Your task to perform on an android device: turn off data saver in the chrome app Image 0: 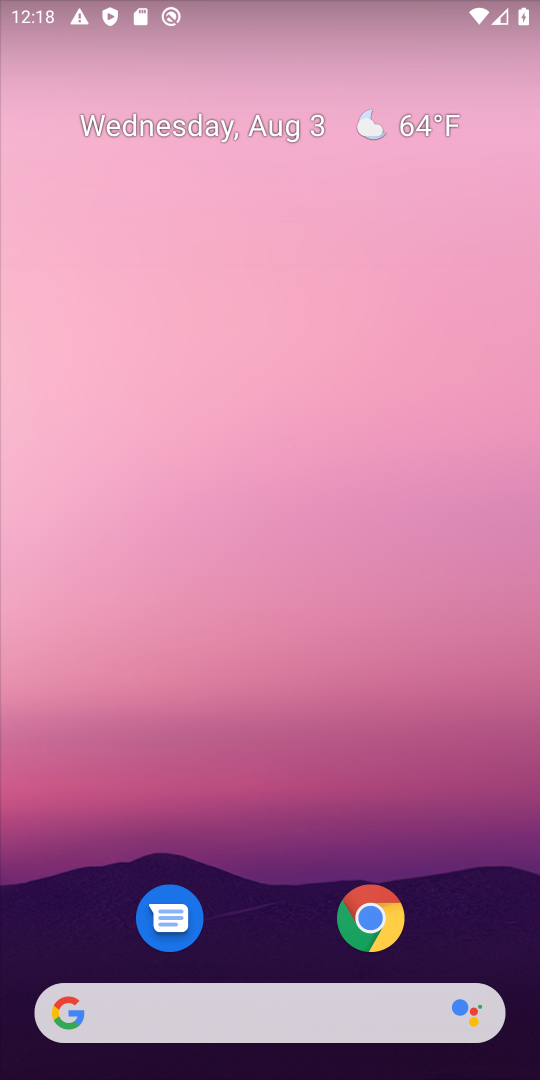
Step 0: click (379, 925)
Your task to perform on an android device: turn off data saver in the chrome app Image 1: 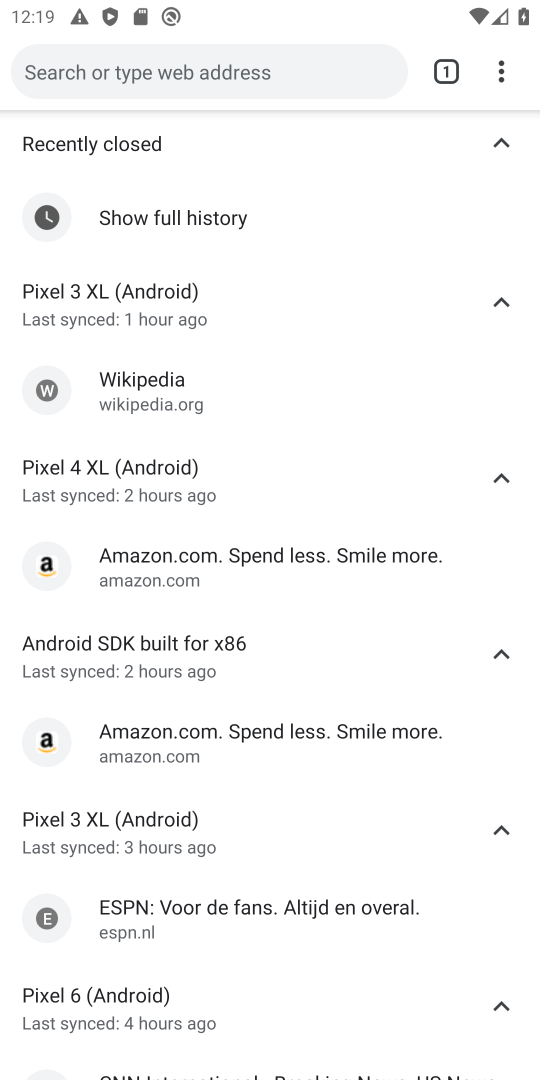
Step 1: click (480, 84)
Your task to perform on an android device: turn off data saver in the chrome app Image 2: 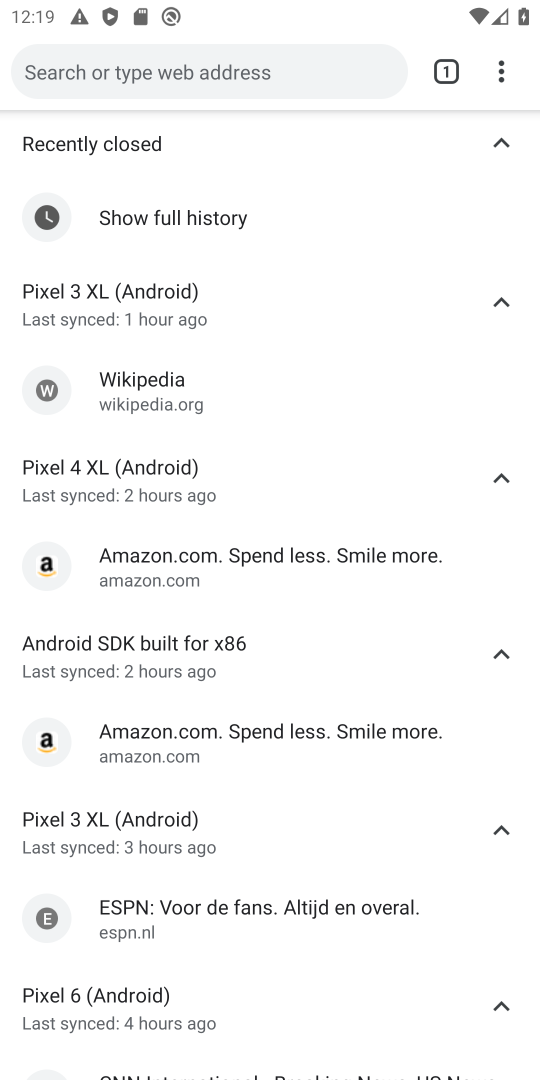
Step 2: press back button
Your task to perform on an android device: turn off data saver in the chrome app Image 3: 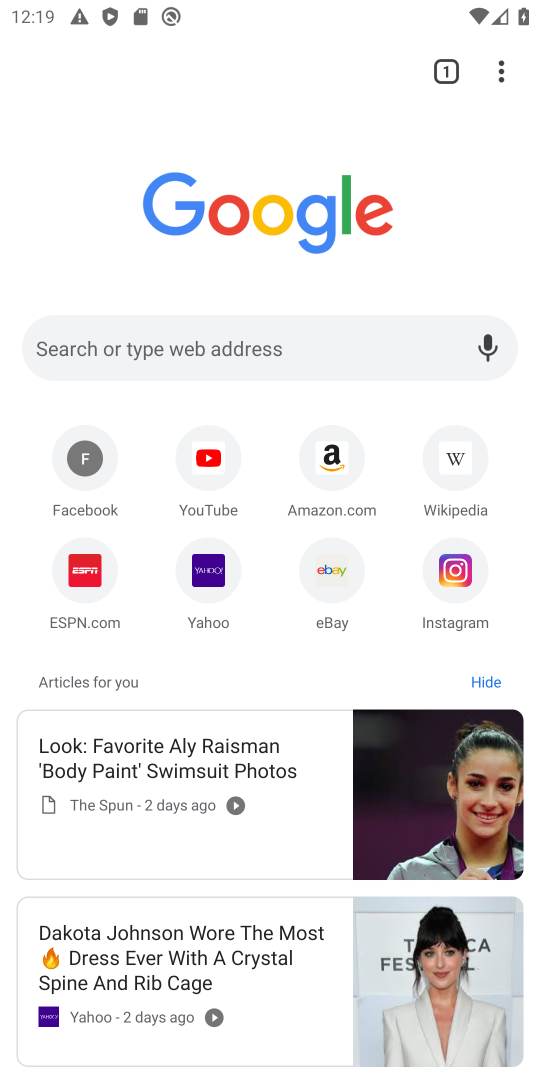
Step 3: click (504, 80)
Your task to perform on an android device: turn off data saver in the chrome app Image 4: 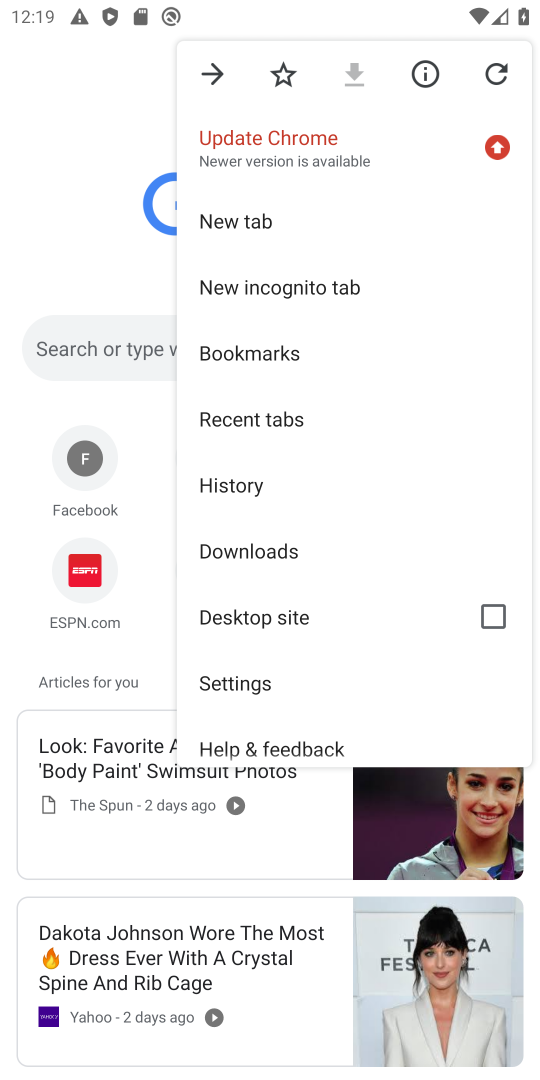
Step 4: click (267, 670)
Your task to perform on an android device: turn off data saver in the chrome app Image 5: 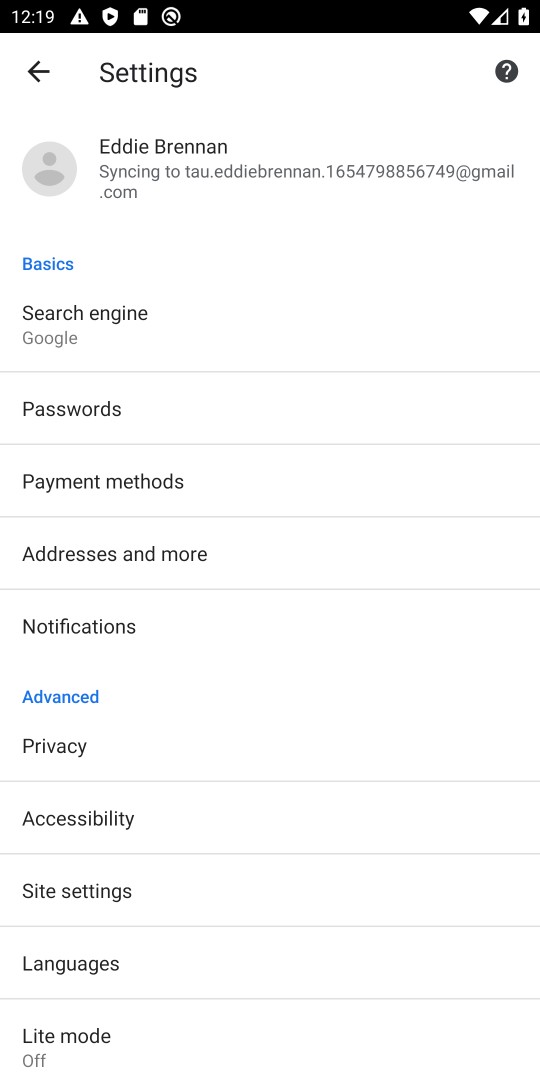
Step 5: click (141, 1057)
Your task to perform on an android device: turn off data saver in the chrome app Image 6: 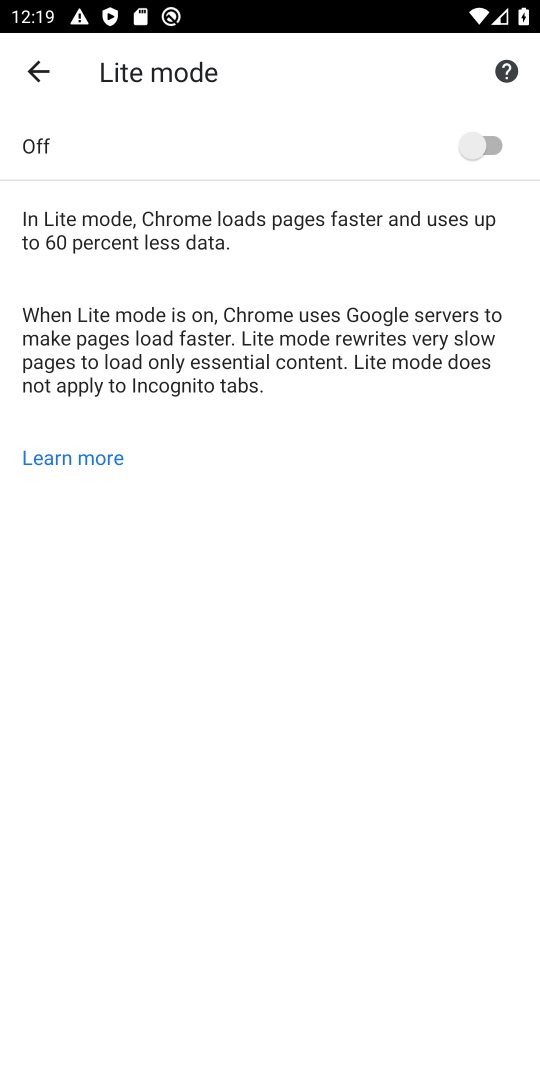
Step 6: task complete